Your task to perform on an android device: choose inbox layout in the gmail app Image 0: 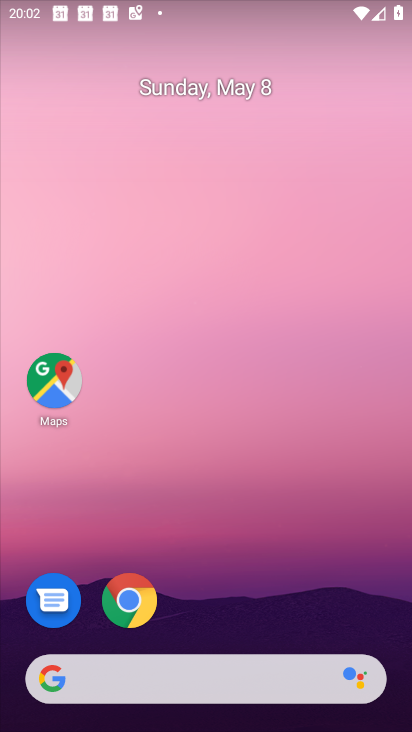
Step 0: drag from (326, 709) to (380, 94)
Your task to perform on an android device: choose inbox layout in the gmail app Image 1: 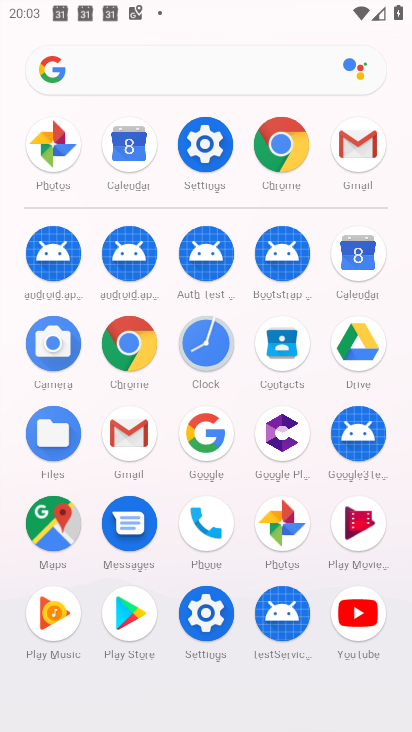
Step 1: click (141, 433)
Your task to perform on an android device: choose inbox layout in the gmail app Image 2: 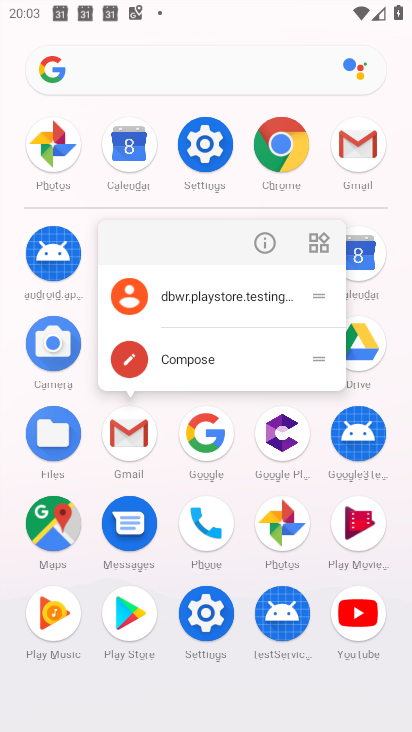
Step 2: click (139, 428)
Your task to perform on an android device: choose inbox layout in the gmail app Image 3: 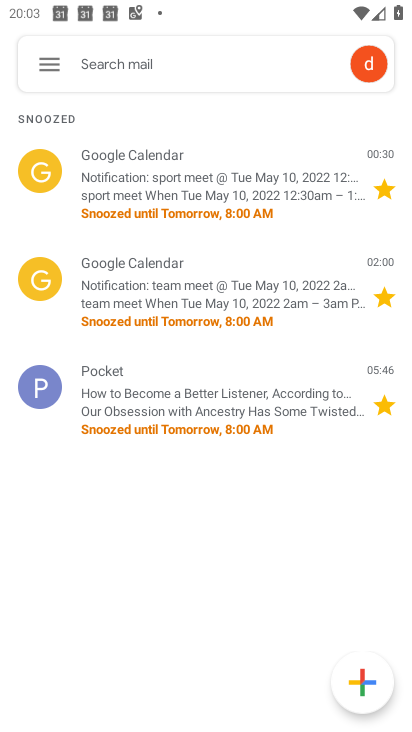
Step 3: click (59, 64)
Your task to perform on an android device: choose inbox layout in the gmail app Image 4: 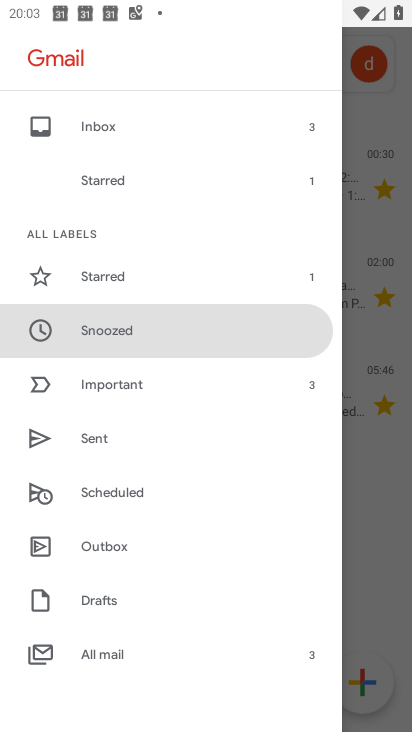
Step 4: drag from (133, 604) to (188, 476)
Your task to perform on an android device: choose inbox layout in the gmail app Image 5: 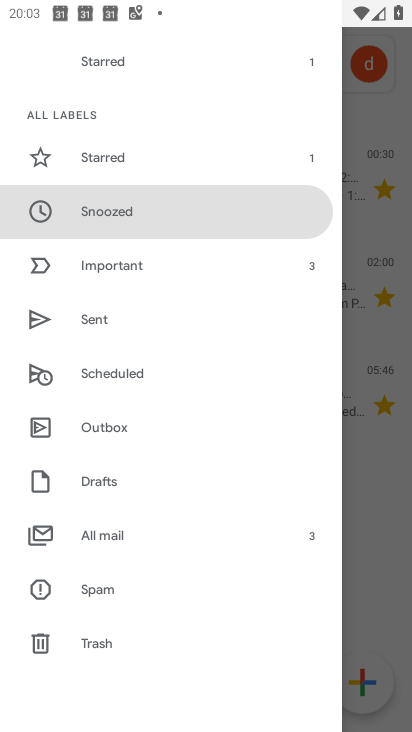
Step 5: drag from (89, 547) to (146, 394)
Your task to perform on an android device: choose inbox layout in the gmail app Image 6: 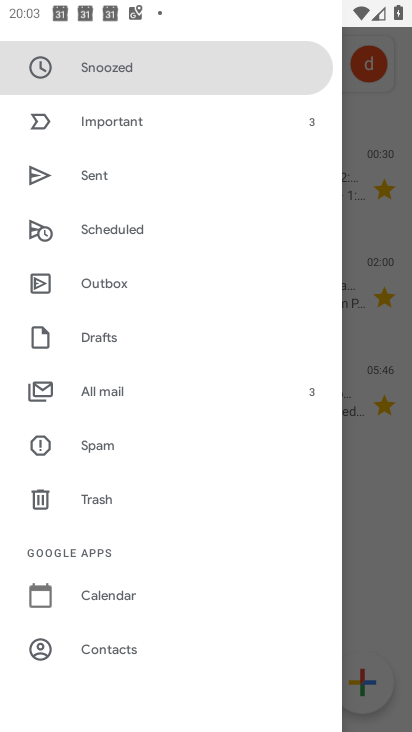
Step 6: drag from (76, 597) to (143, 463)
Your task to perform on an android device: choose inbox layout in the gmail app Image 7: 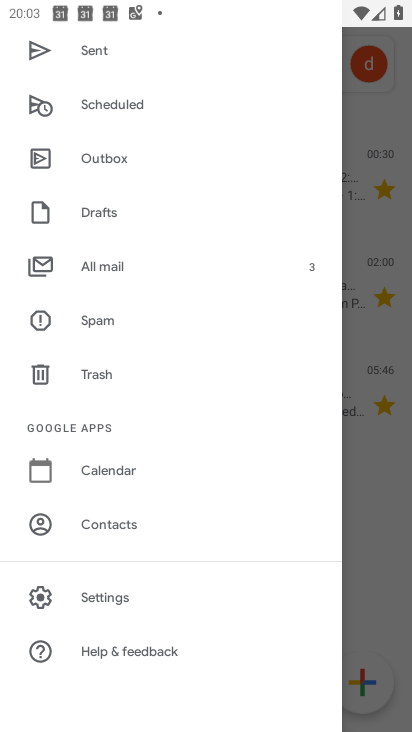
Step 7: click (98, 601)
Your task to perform on an android device: choose inbox layout in the gmail app Image 8: 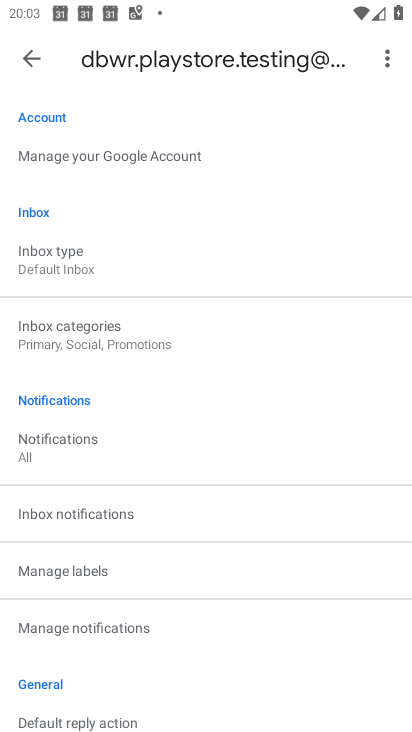
Step 8: task complete